Your task to perform on an android device: manage bookmarks in the chrome app Image 0: 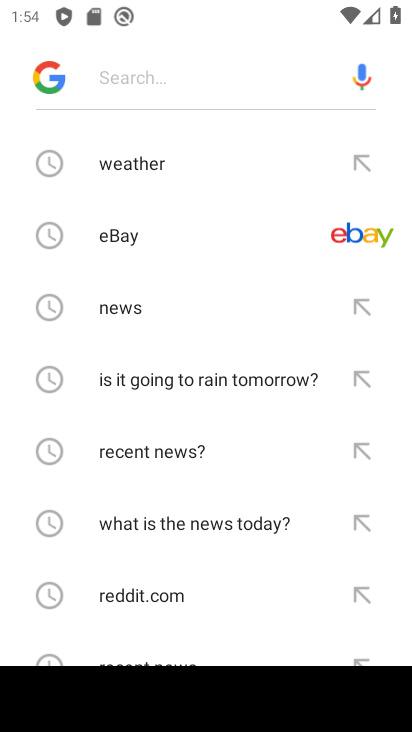
Step 0: press home button
Your task to perform on an android device: manage bookmarks in the chrome app Image 1: 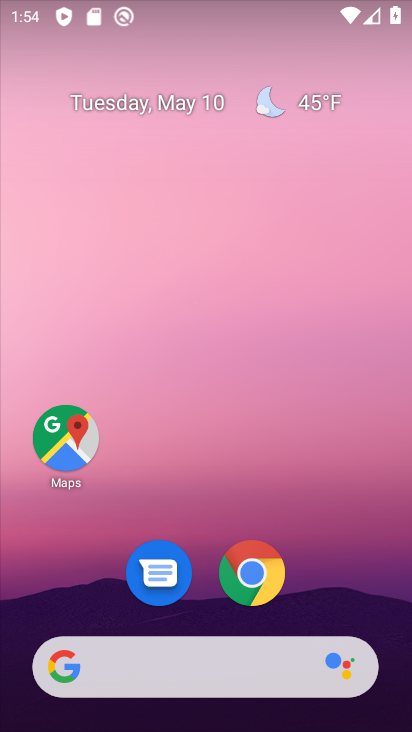
Step 1: click (255, 565)
Your task to perform on an android device: manage bookmarks in the chrome app Image 2: 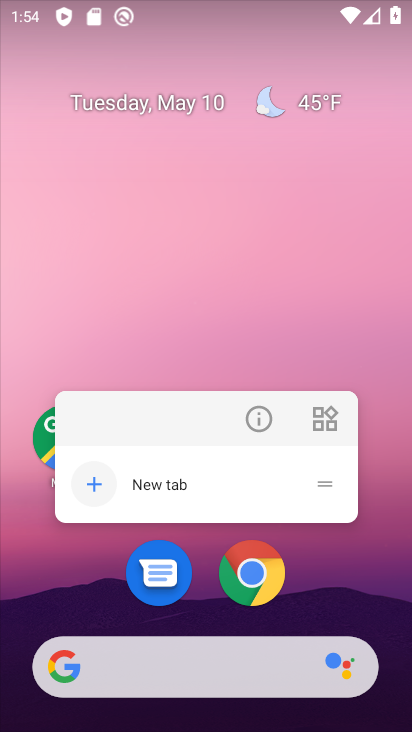
Step 2: click (253, 558)
Your task to perform on an android device: manage bookmarks in the chrome app Image 3: 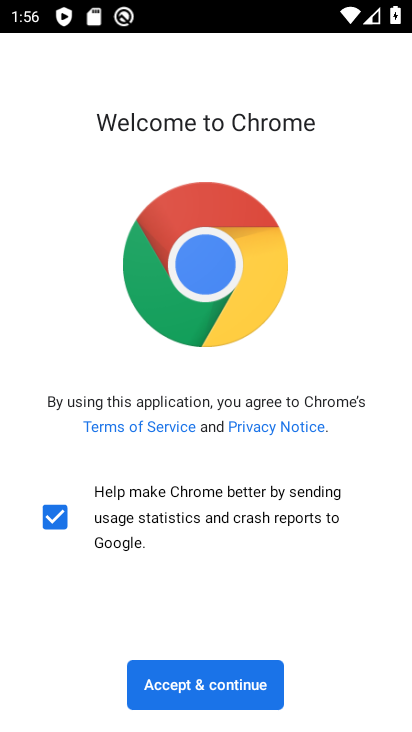
Step 3: click (209, 674)
Your task to perform on an android device: manage bookmarks in the chrome app Image 4: 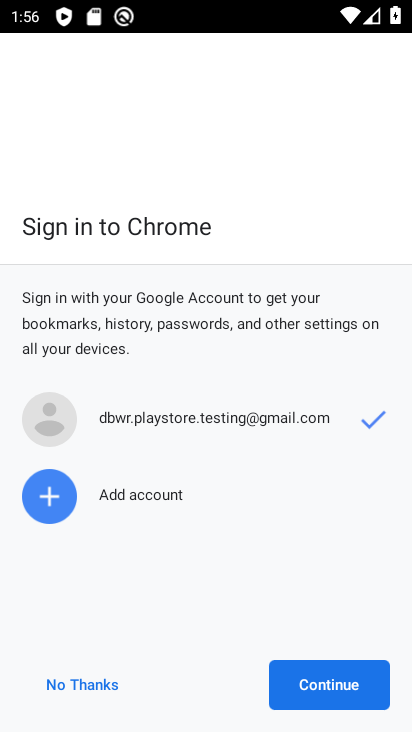
Step 4: click (332, 680)
Your task to perform on an android device: manage bookmarks in the chrome app Image 5: 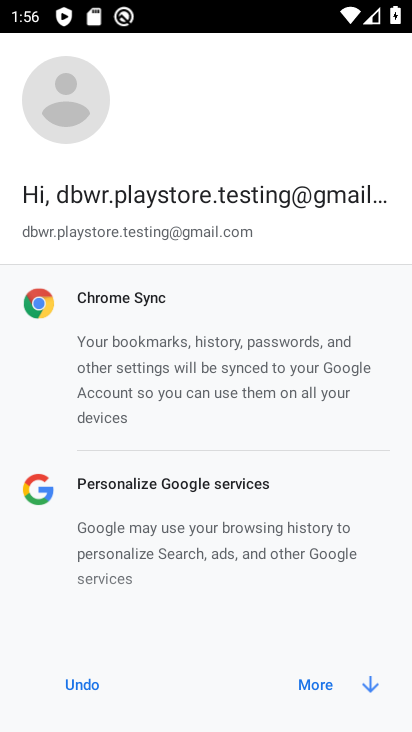
Step 5: click (327, 677)
Your task to perform on an android device: manage bookmarks in the chrome app Image 6: 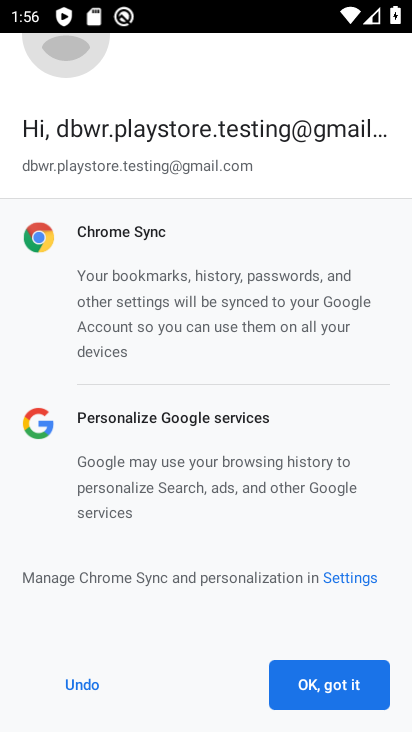
Step 6: click (327, 677)
Your task to perform on an android device: manage bookmarks in the chrome app Image 7: 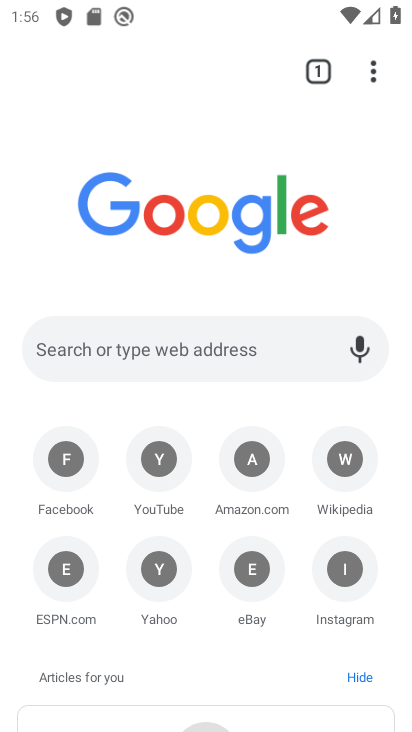
Step 7: task complete